Your task to perform on an android device: toggle priority inbox in the gmail app Image 0: 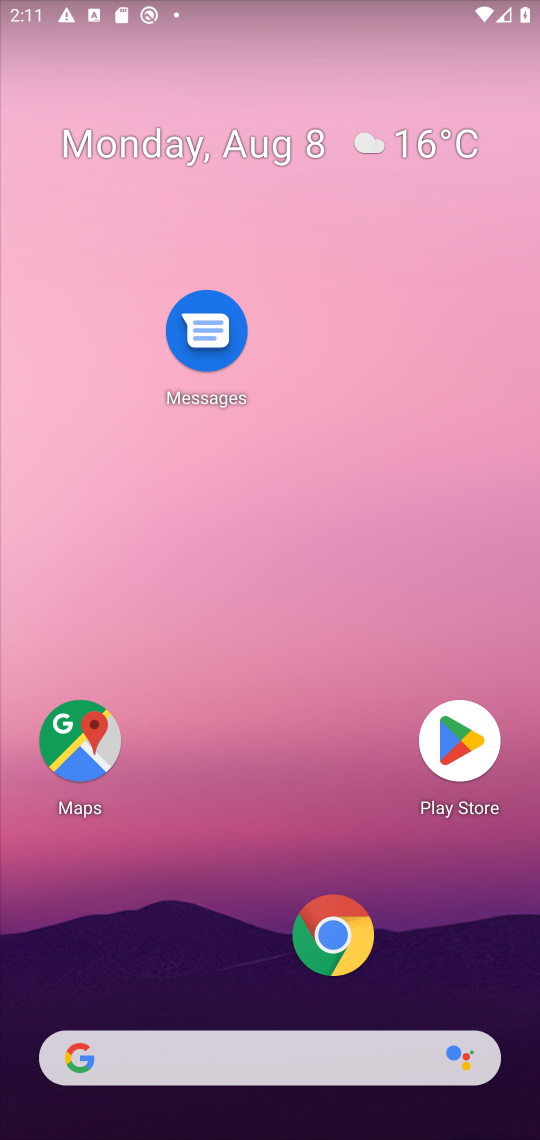
Step 0: drag from (344, 1046) to (434, 106)
Your task to perform on an android device: toggle priority inbox in the gmail app Image 1: 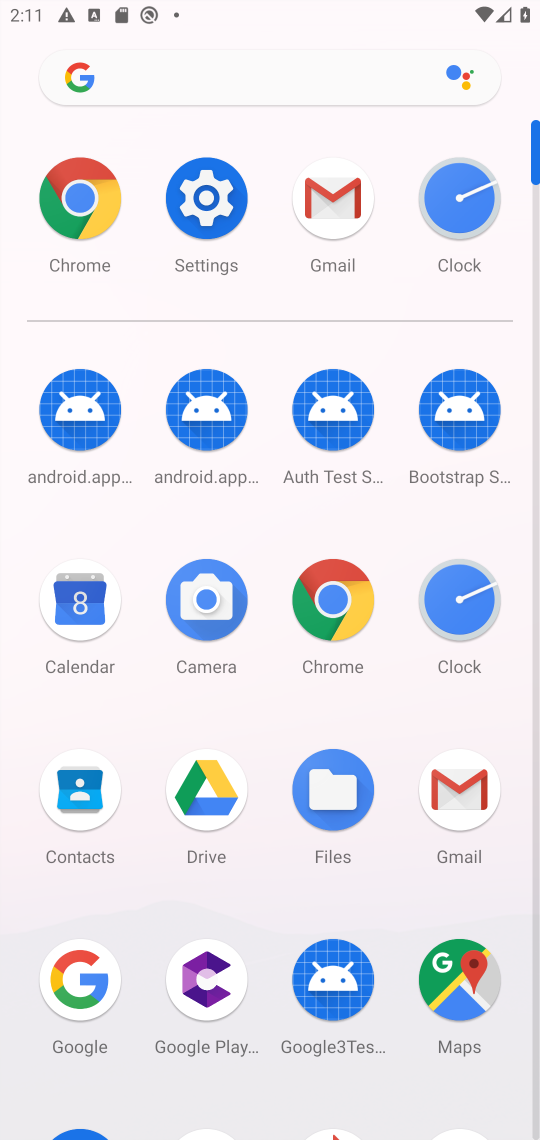
Step 1: click (444, 820)
Your task to perform on an android device: toggle priority inbox in the gmail app Image 2: 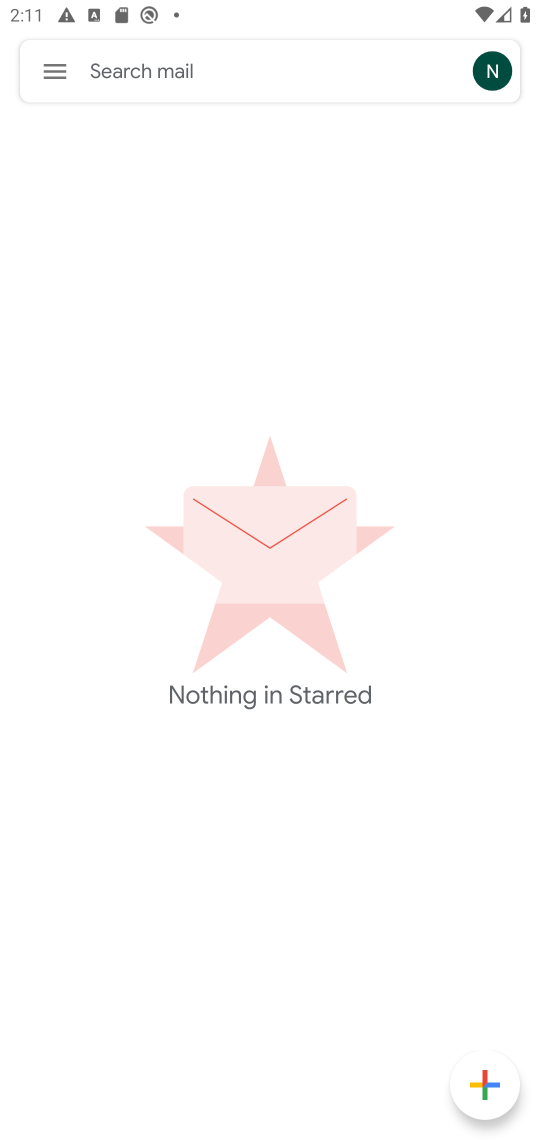
Step 2: click (57, 70)
Your task to perform on an android device: toggle priority inbox in the gmail app Image 3: 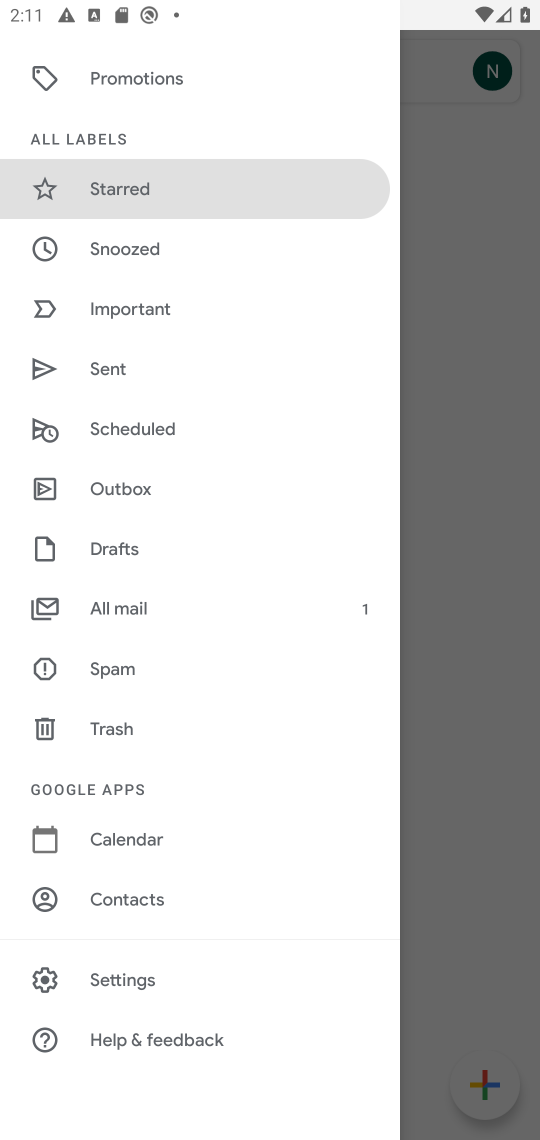
Step 3: click (132, 979)
Your task to perform on an android device: toggle priority inbox in the gmail app Image 4: 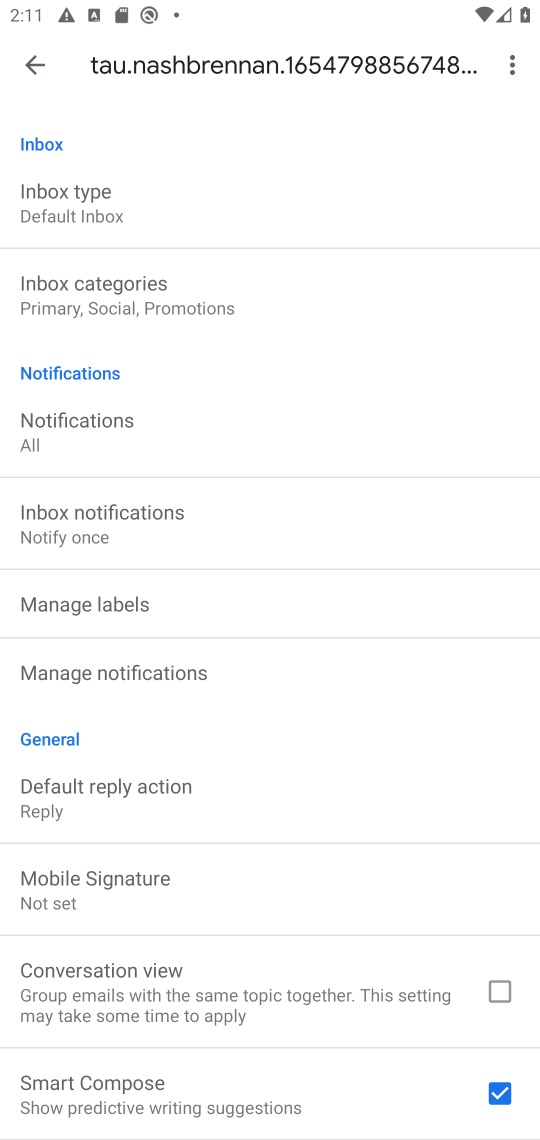
Step 4: click (136, 216)
Your task to perform on an android device: toggle priority inbox in the gmail app Image 5: 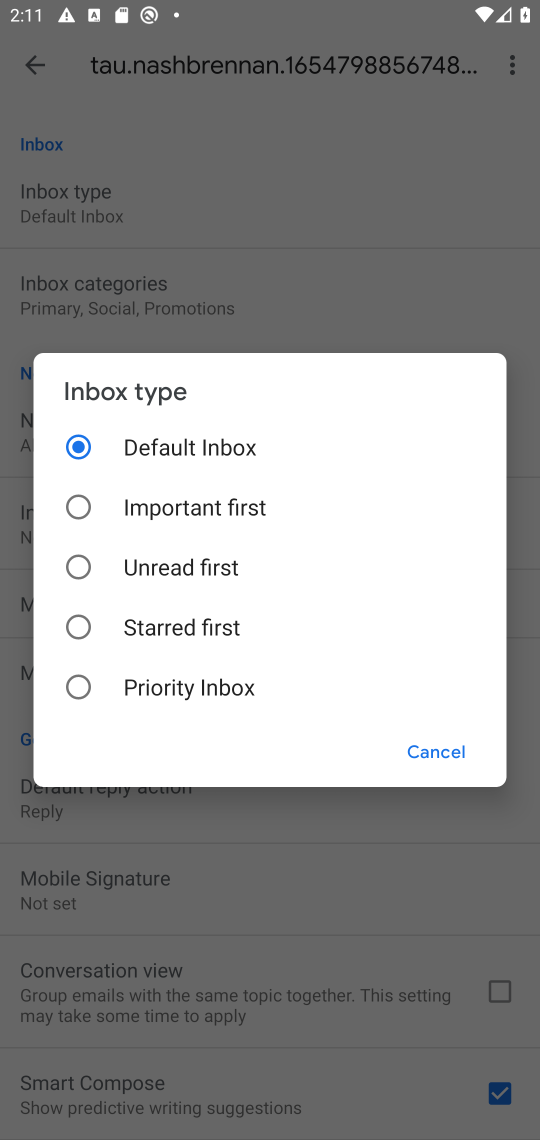
Step 5: click (77, 686)
Your task to perform on an android device: toggle priority inbox in the gmail app Image 6: 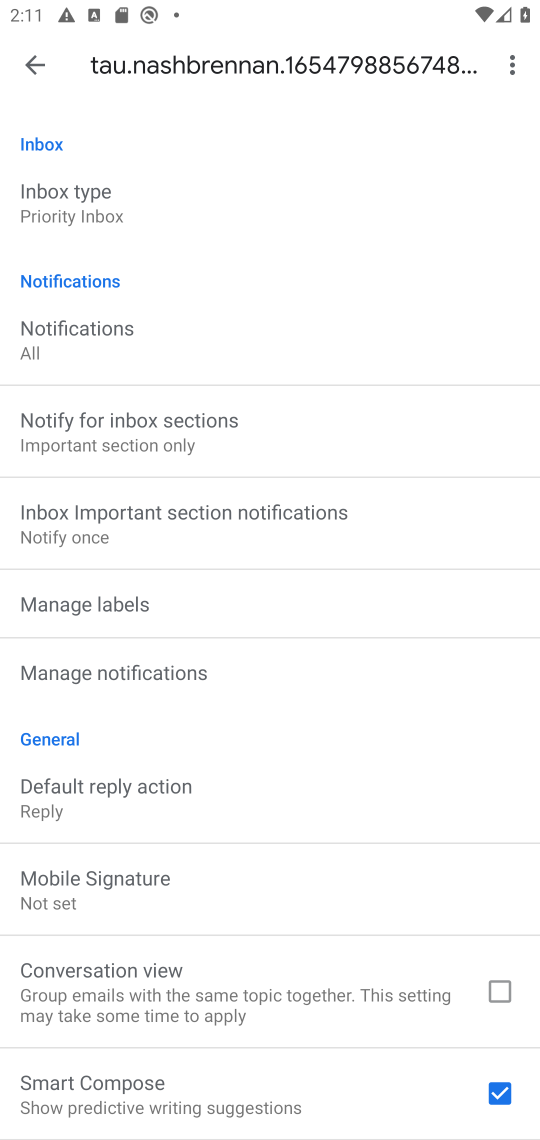
Step 6: task complete